Your task to perform on an android device: toggle sleep mode Image 0: 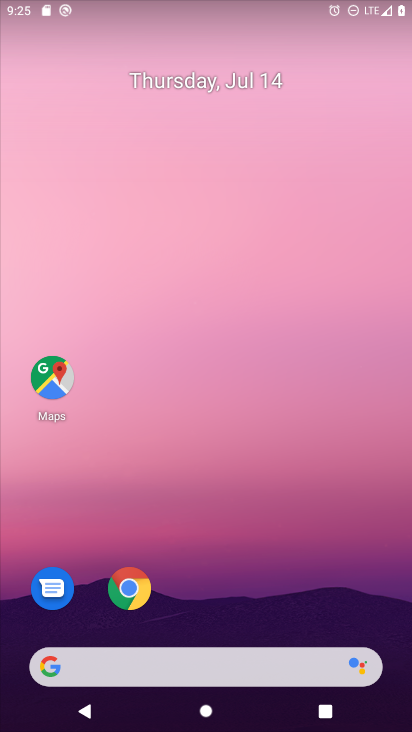
Step 0: drag from (173, 563) to (270, 88)
Your task to perform on an android device: toggle sleep mode Image 1: 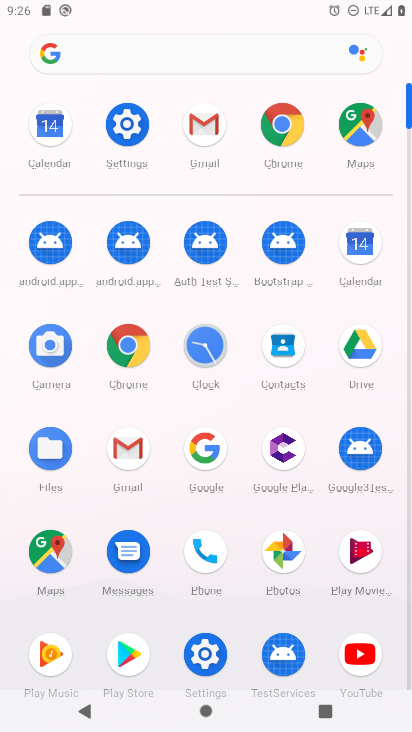
Step 1: click (118, 136)
Your task to perform on an android device: toggle sleep mode Image 2: 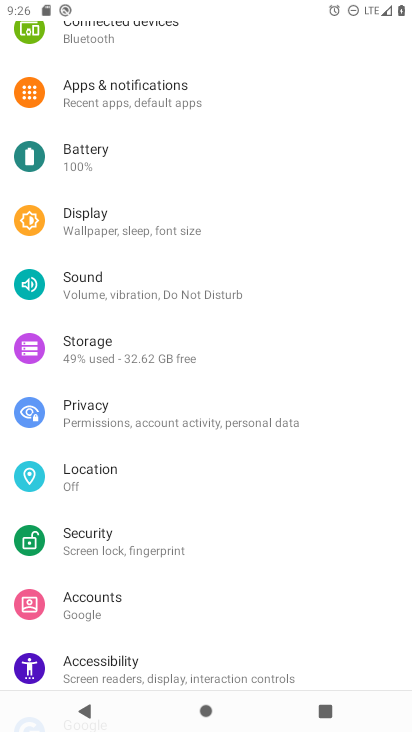
Step 2: click (127, 229)
Your task to perform on an android device: toggle sleep mode Image 3: 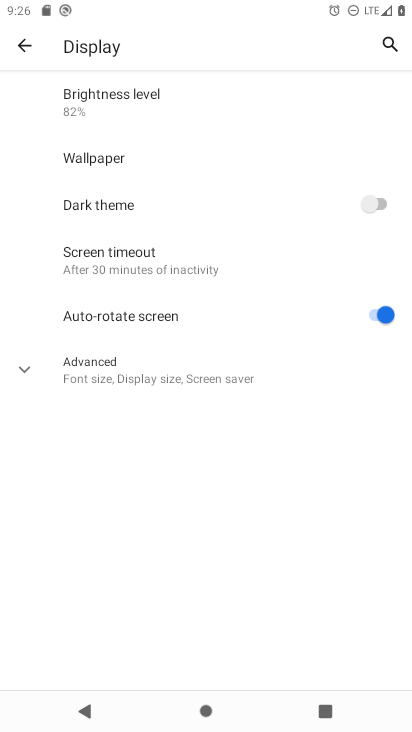
Step 3: click (135, 266)
Your task to perform on an android device: toggle sleep mode Image 4: 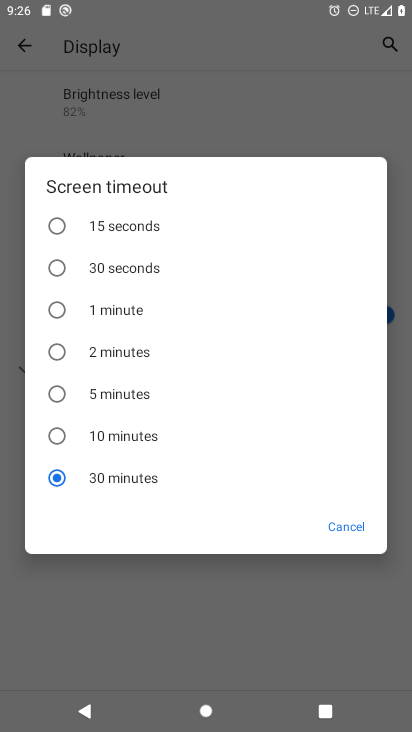
Step 4: click (126, 320)
Your task to perform on an android device: toggle sleep mode Image 5: 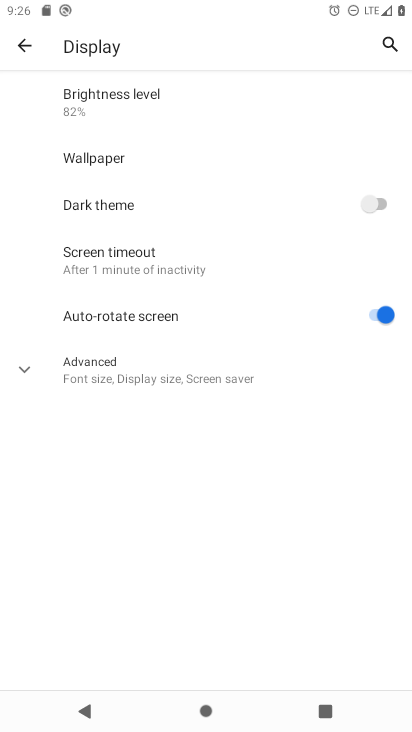
Step 5: task complete